Your task to perform on an android device: Search for seafood restaurants on Google Maps Image 0: 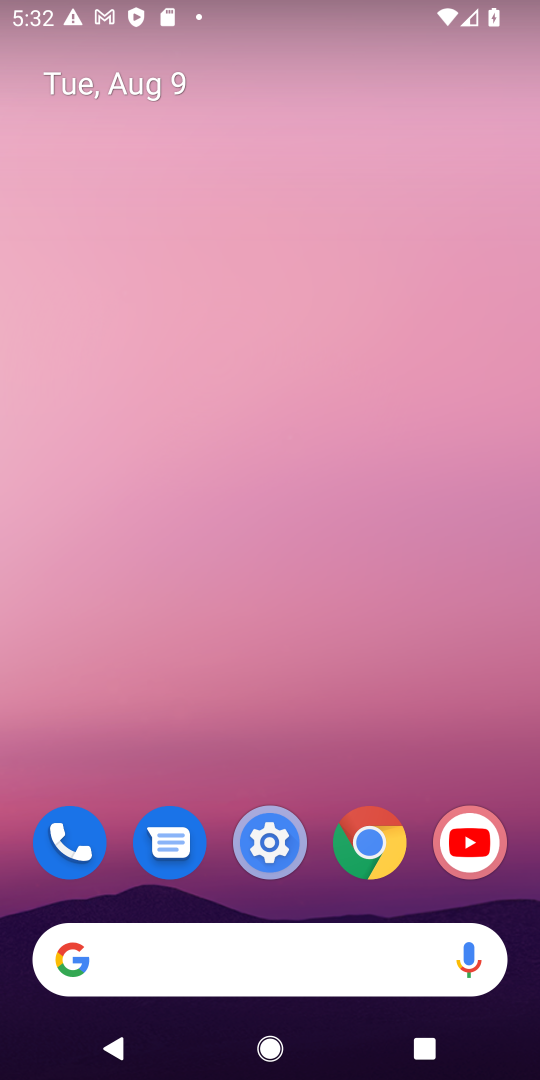
Step 0: drag from (187, 932) to (139, 60)
Your task to perform on an android device: Search for seafood restaurants on Google Maps Image 1: 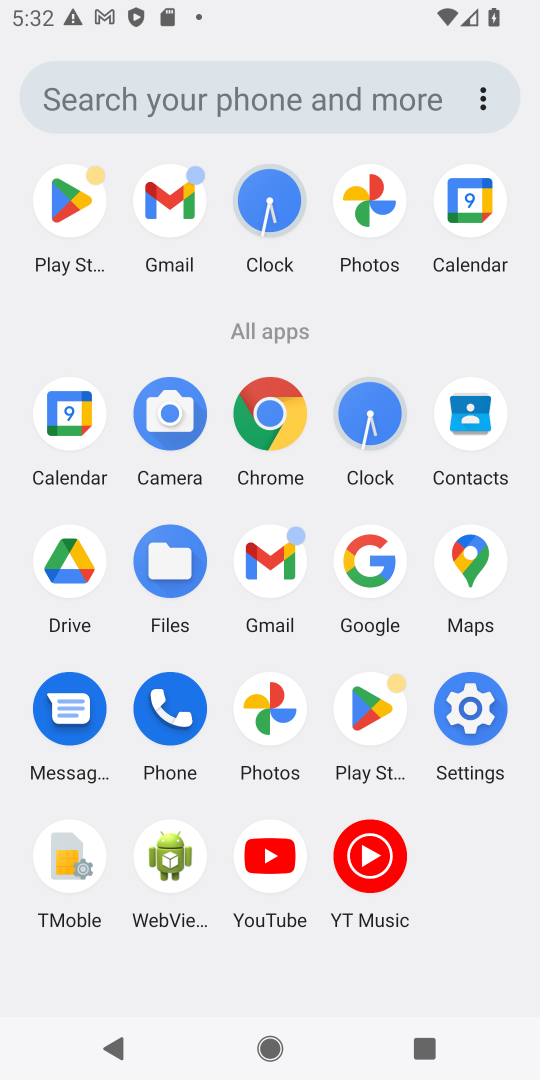
Step 1: click (465, 543)
Your task to perform on an android device: Search for seafood restaurants on Google Maps Image 2: 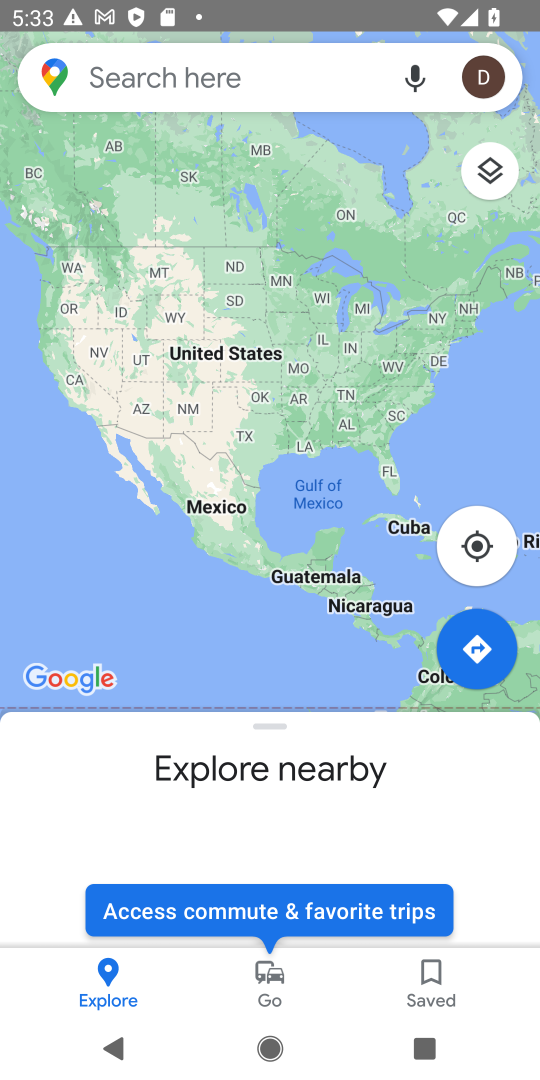
Step 2: click (128, 85)
Your task to perform on an android device: Search for seafood restaurants on Google Maps Image 3: 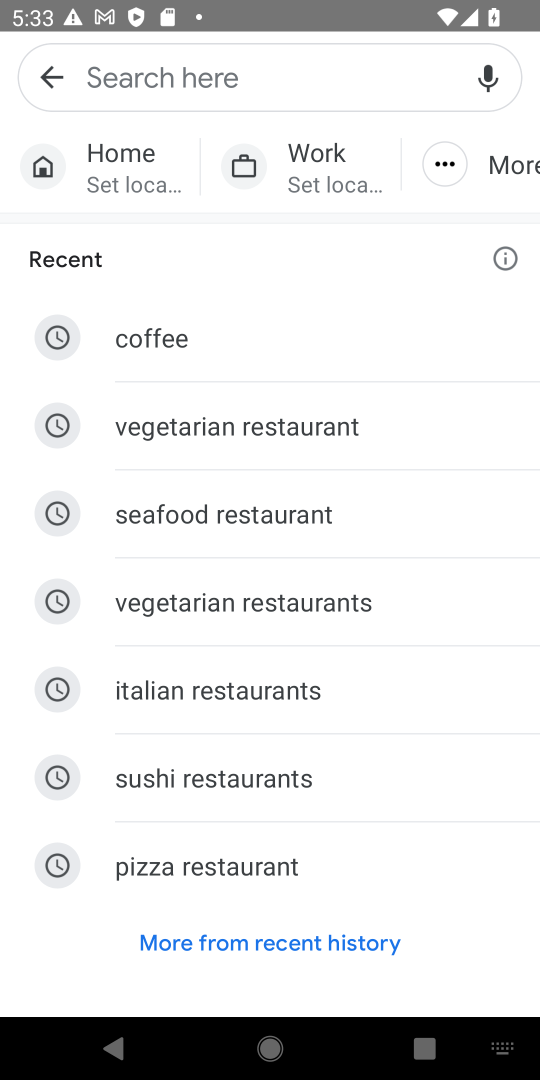
Step 3: click (162, 506)
Your task to perform on an android device: Search for seafood restaurants on Google Maps Image 4: 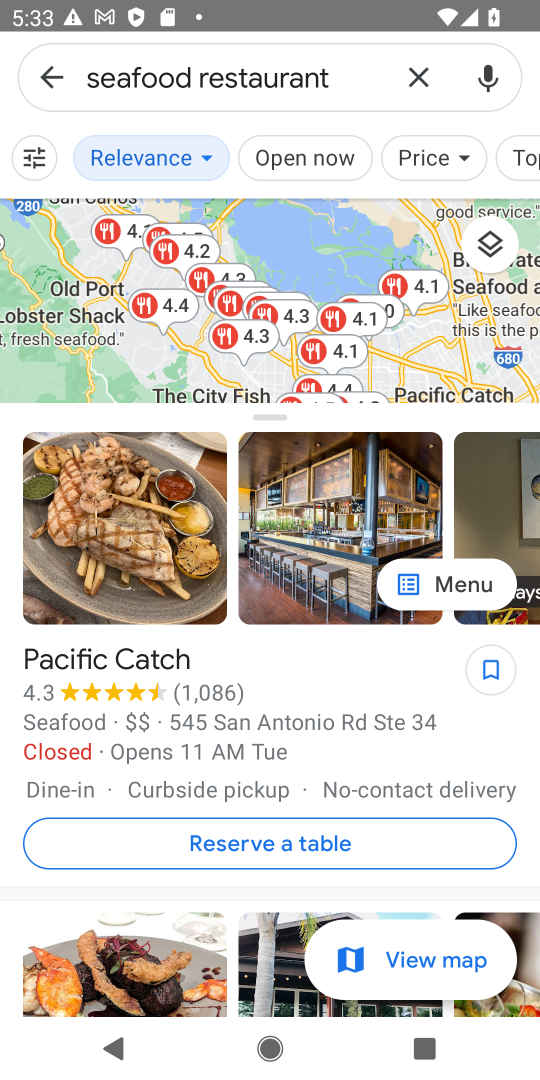
Step 4: task complete